Your task to perform on an android device: open chrome privacy settings Image 0: 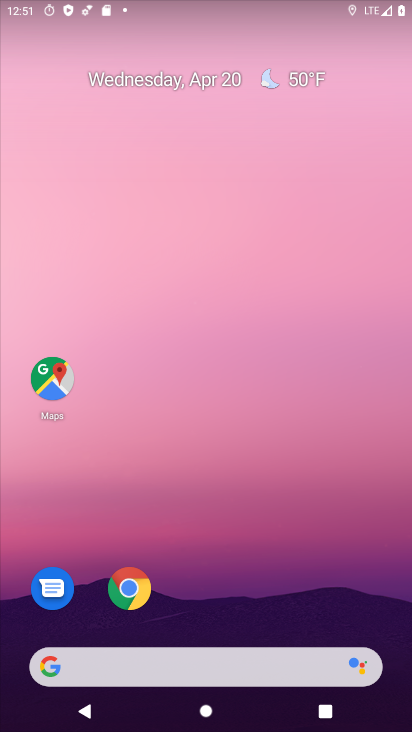
Step 0: click (141, 586)
Your task to perform on an android device: open chrome privacy settings Image 1: 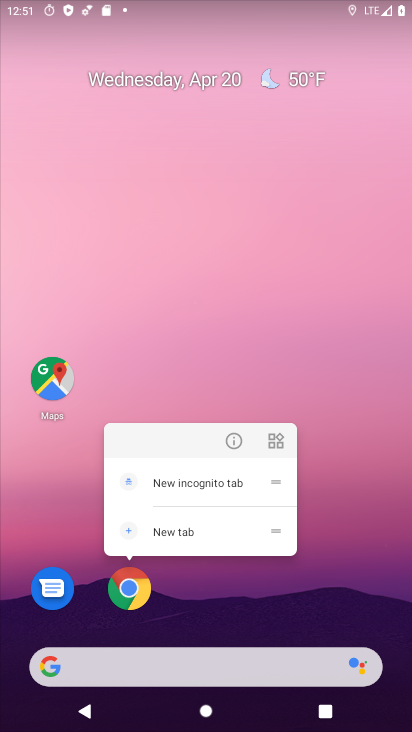
Step 1: click (140, 584)
Your task to perform on an android device: open chrome privacy settings Image 2: 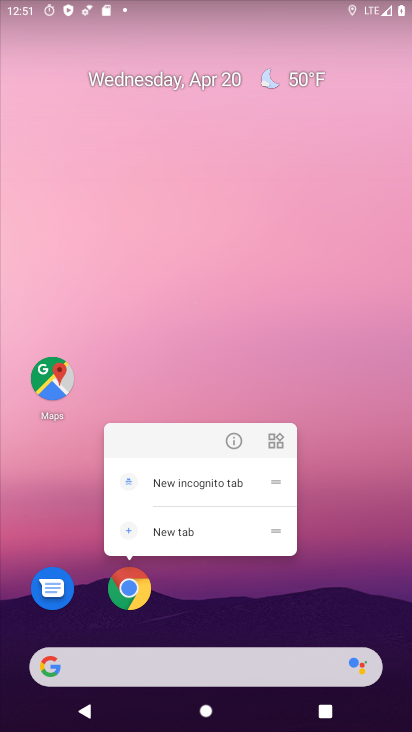
Step 2: click (140, 584)
Your task to perform on an android device: open chrome privacy settings Image 3: 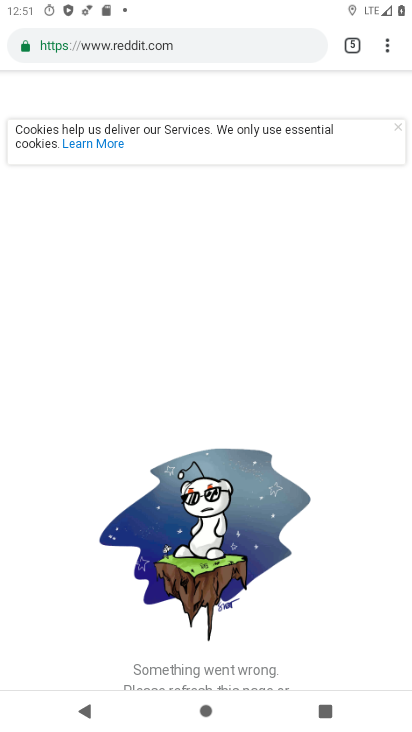
Step 3: click (387, 46)
Your task to perform on an android device: open chrome privacy settings Image 4: 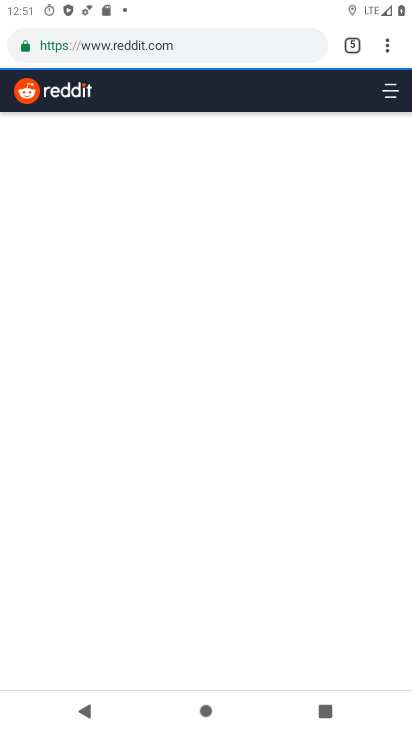
Step 4: drag from (387, 46) to (272, 544)
Your task to perform on an android device: open chrome privacy settings Image 5: 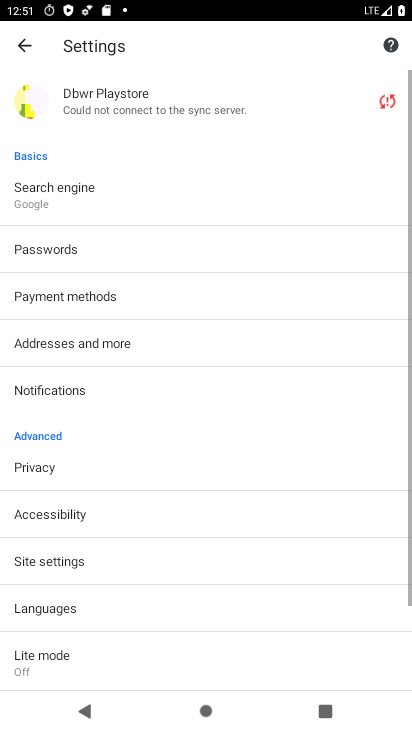
Step 5: click (27, 469)
Your task to perform on an android device: open chrome privacy settings Image 6: 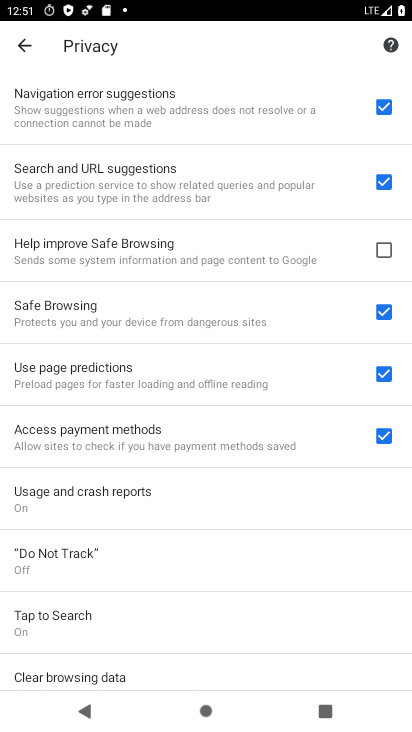
Step 6: task complete